Your task to perform on an android device: uninstall "Fetch Rewards" Image 0: 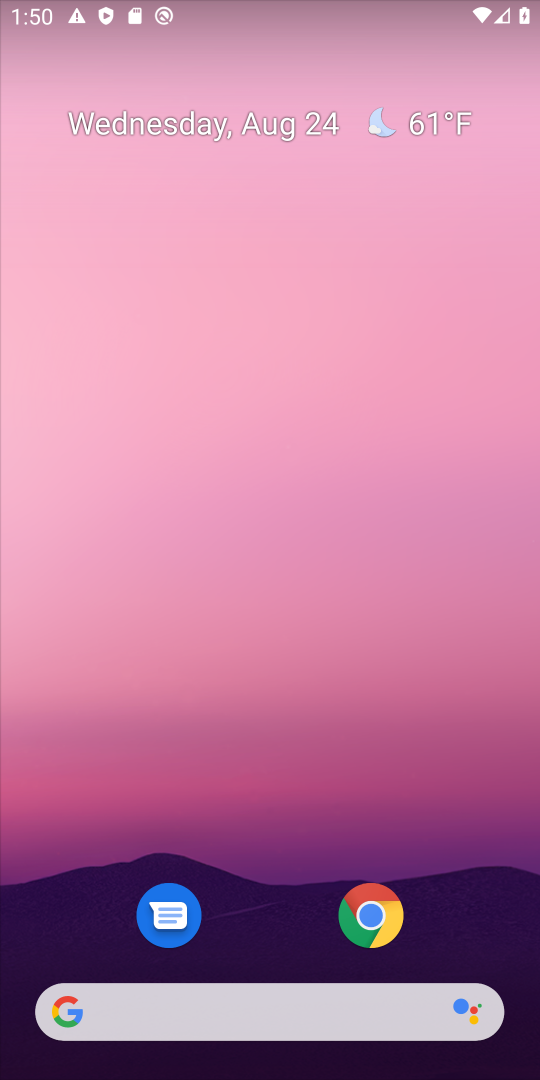
Step 0: drag from (284, 874) to (320, 246)
Your task to perform on an android device: uninstall "Fetch Rewards" Image 1: 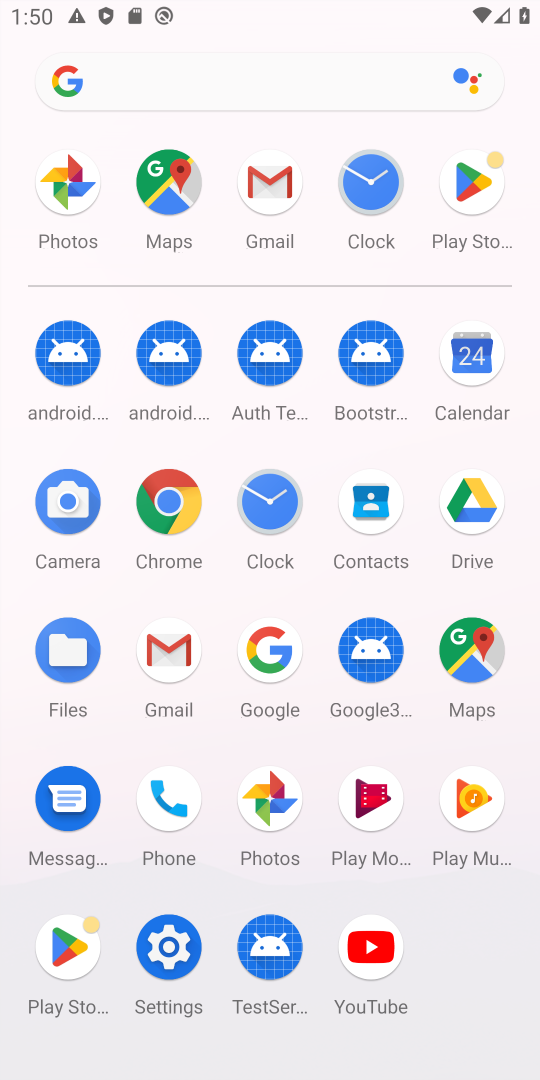
Step 1: click (468, 177)
Your task to perform on an android device: uninstall "Fetch Rewards" Image 2: 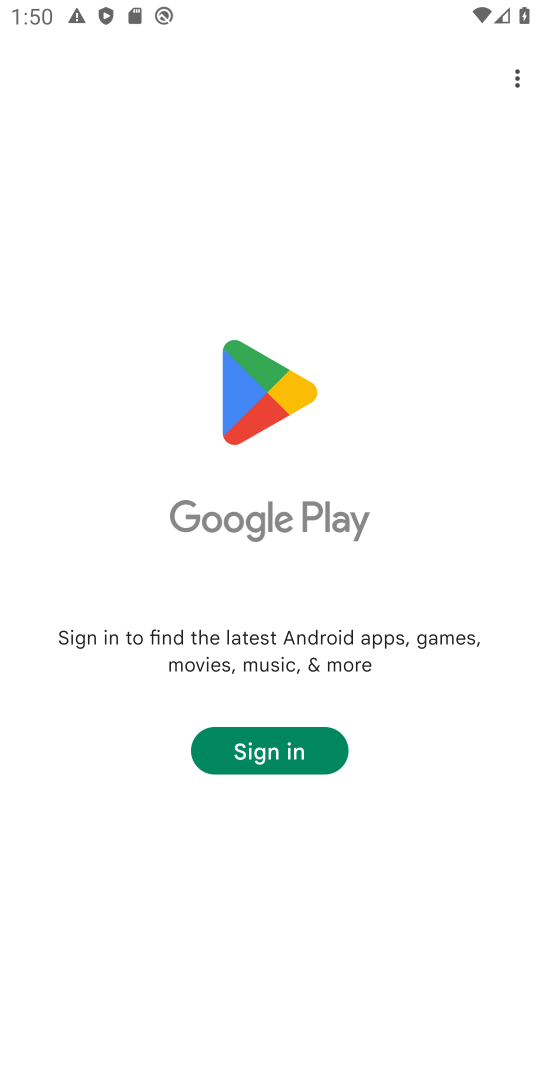
Step 2: task complete